Your task to perform on an android device: Open calendar and show me the second week of next month Image 0: 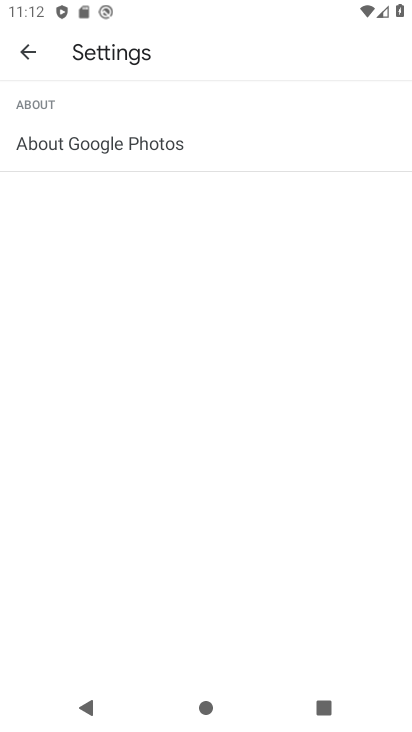
Step 0: press home button
Your task to perform on an android device: Open calendar and show me the second week of next month Image 1: 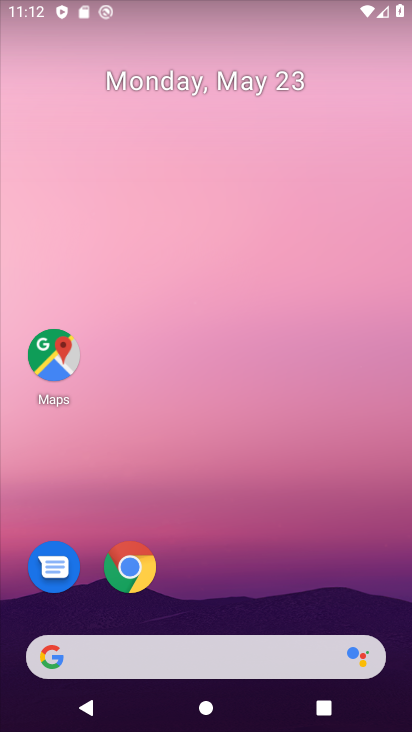
Step 1: drag from (321, 530) to (289, 210)
Your task to perform on an android device: Open calendar and show me the second week of next month Image 2: 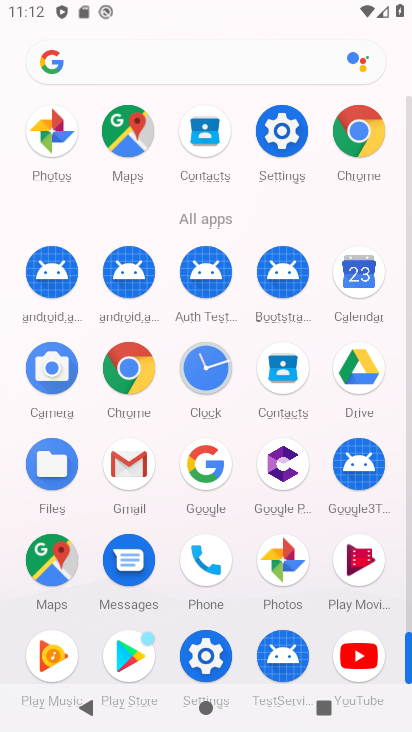
Step 2: click (355, 274)
Your task to perform on an android device: Open calendar and show me the second week of next month Image 3: 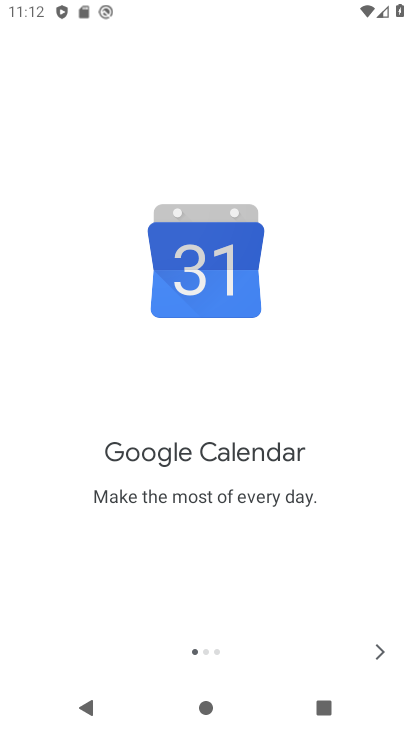
Step 3: click (369, 658)
Your task to perform on an android device: Open calendar and show me the second week of next month Image 4: 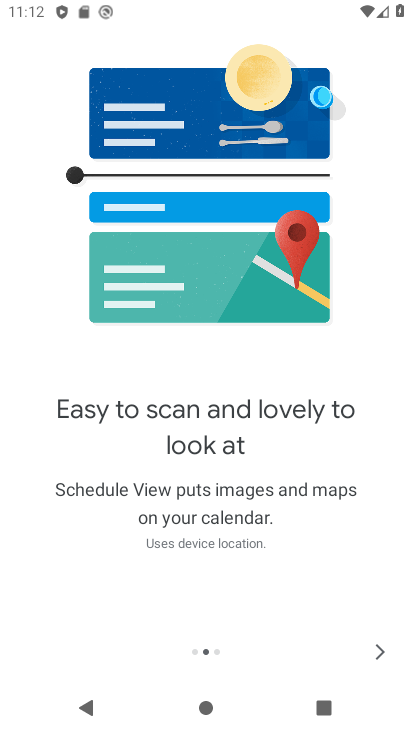
Step 4: click (369, 658)
Your task to perform on an android device: Open calendar and show me the second week of next month Image 5: 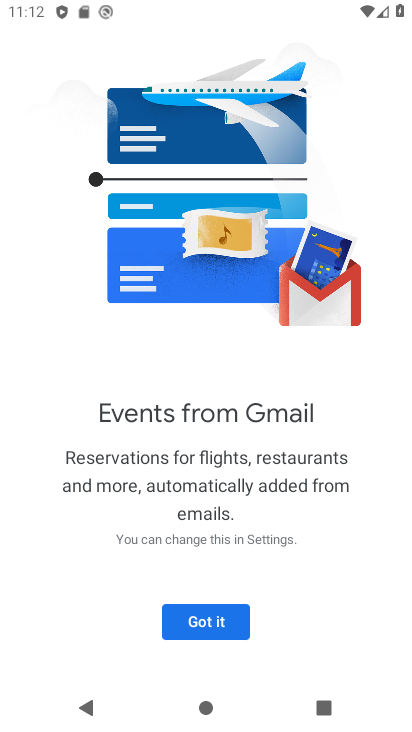
Step 5: click (217, 632)
Your task to perform on an android device: Open calendar and show me the second week of next month Image 6: 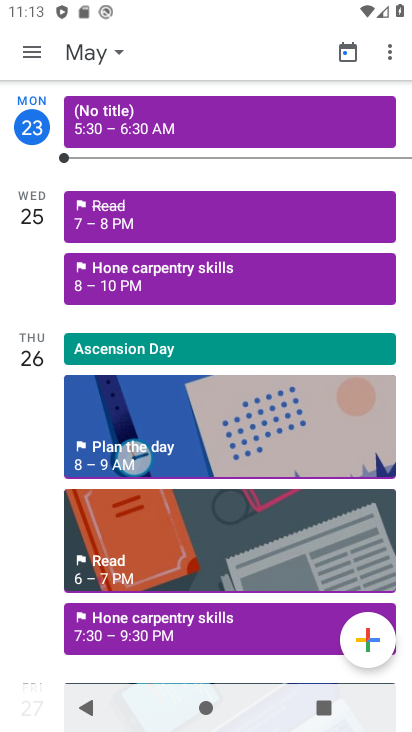
Step 6: click (77, 57)
Your task to perform on an android device: Open calendar and show me the second week of next month Image 7: 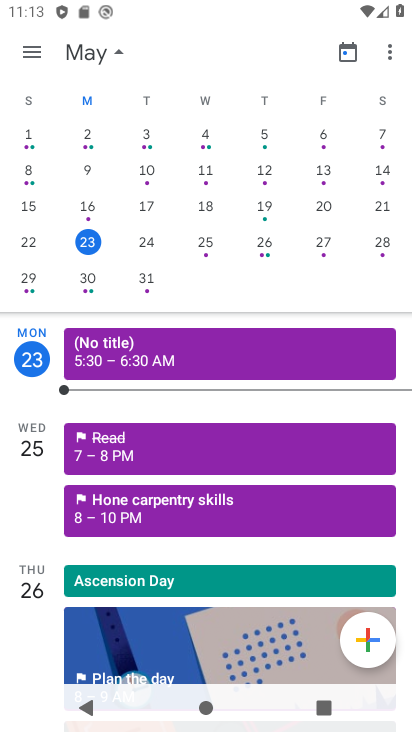
Step 7: drag from (320, 197) to (8, 206)
Your task to perform on an android device: Open calendar and show me the second week of next month Image 8: 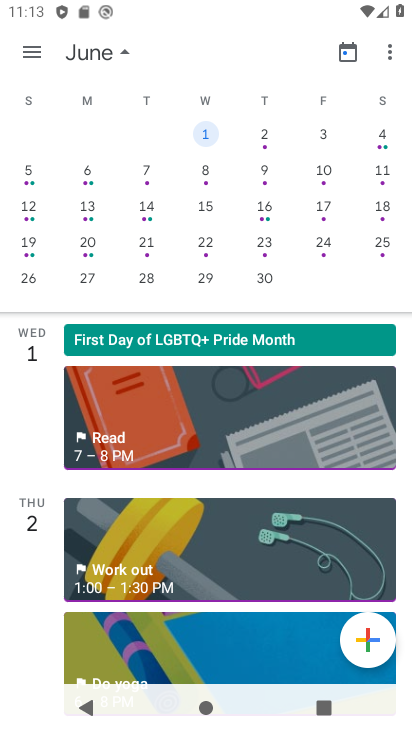
Step 8: click (28, 169)
Your task to perform on an android device: Open calendar and show me the second week of next month Image 9: 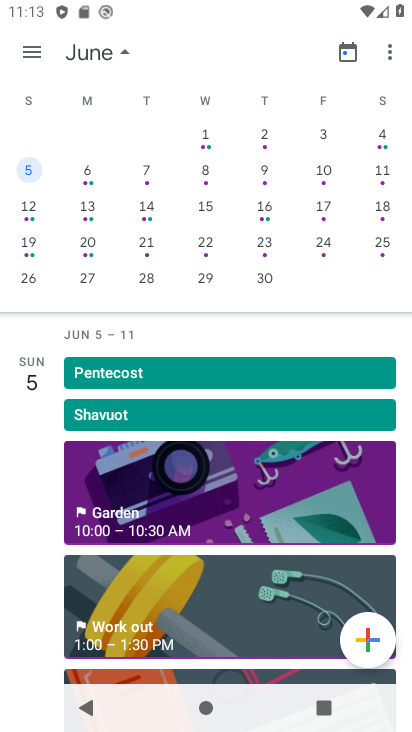
Step 9: task complete